Your task to perform on an android device: set the timer Image 0: 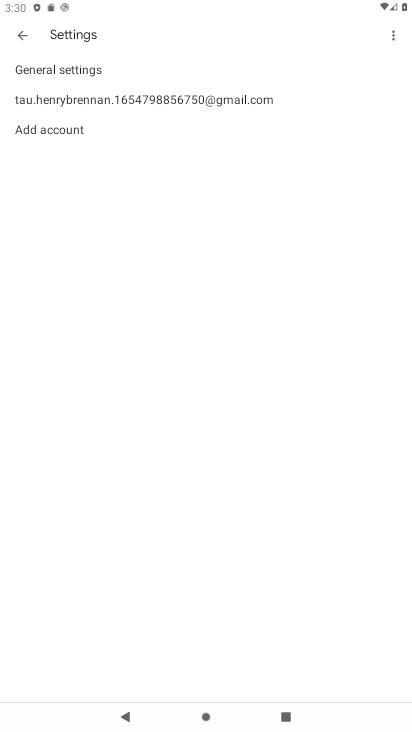
Step 0: press home button
Your task to perform on an android device: set the timer Image 1: 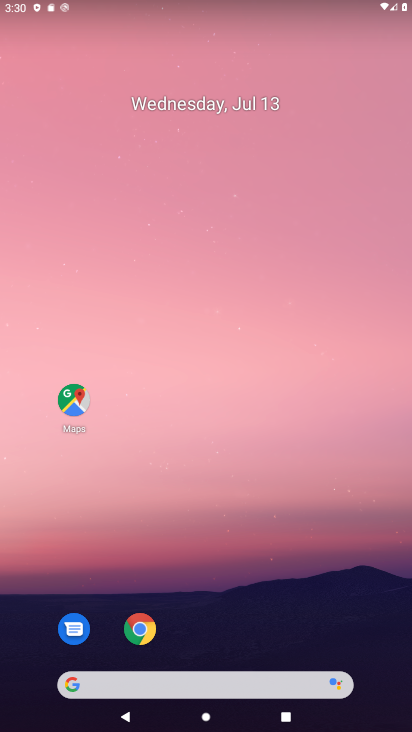
Step 1: drag from (270, 625) to (333, 134)
Your task to perform on an android device: set the timer Image 2: 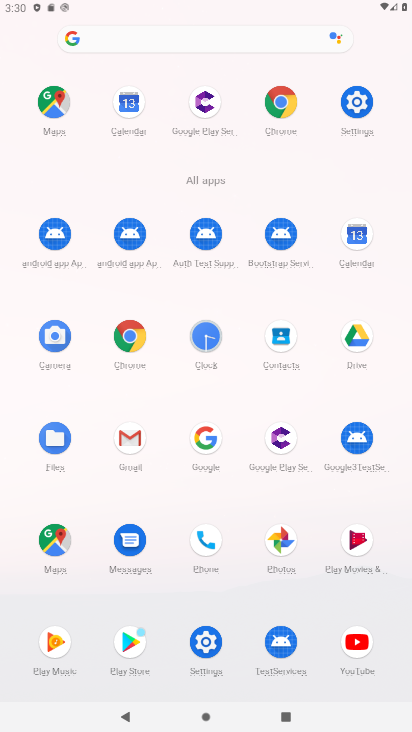
Step 2: click (201, 344)
Your task to perform on an android device: set the timer Image 3: 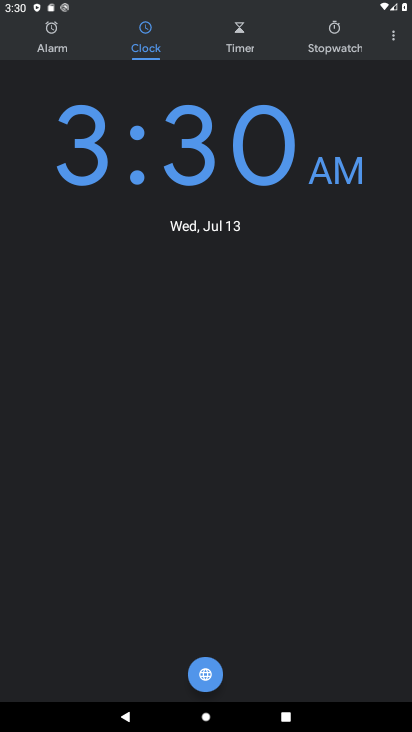
Step 3: click (245, 25)
Your task to perform on an android device: set the timer Image 4: 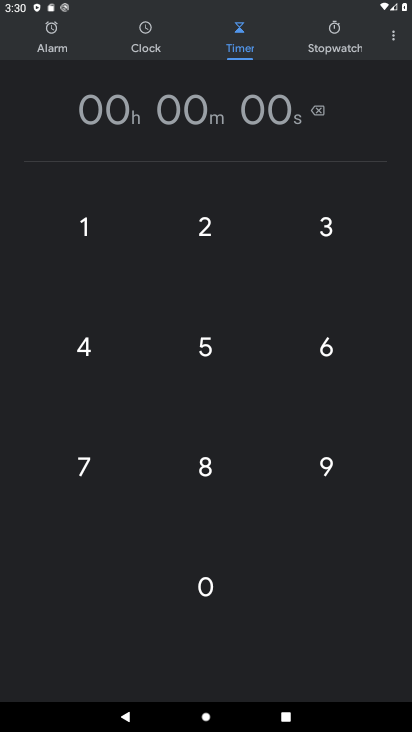
Step 4: click (209, 338)
Your task to perform on an android device: set the timer Image 5: 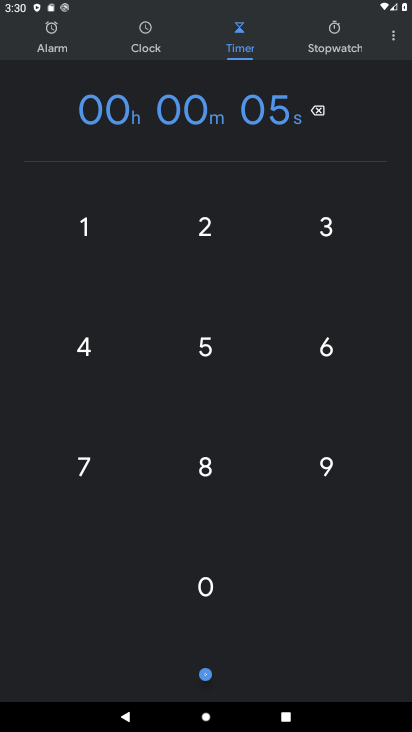
Step 5: click (213, 224)
Your task to perform on an android device: set the timer Image 6: 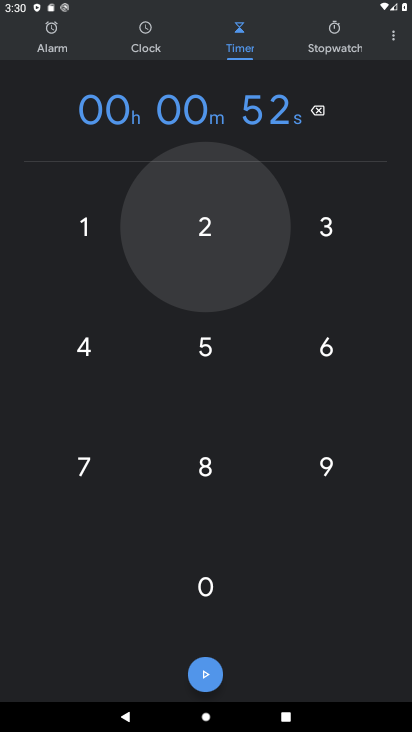
Step 6: click (213, 224)
Your task to perform on an android device: set the timer Image 7: 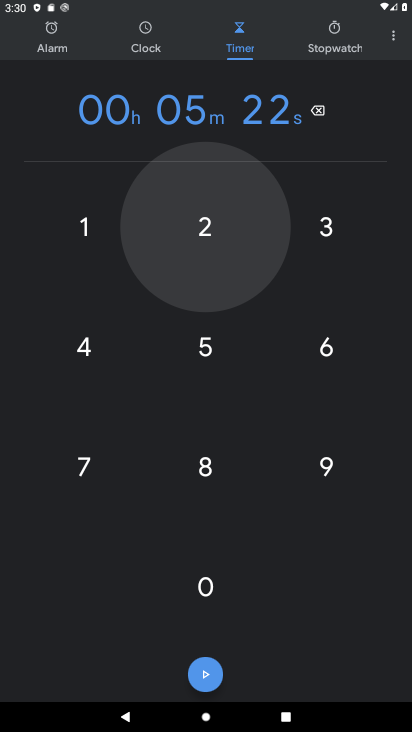
Step 7: click (213, 224)
Your task to perform on an android device: set the timer Image 8: 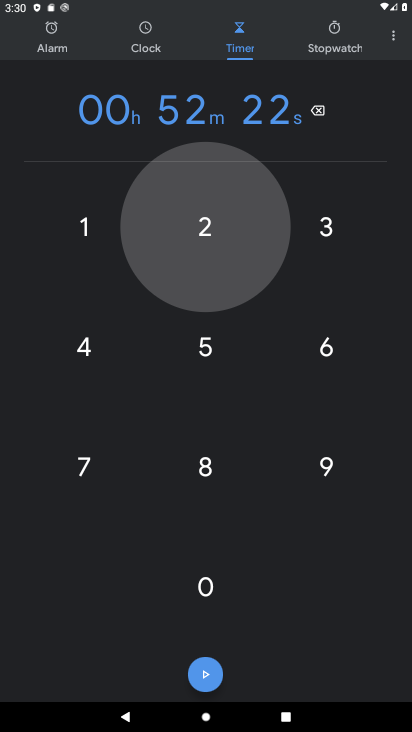
Step 8: click (213, 224)
Your task to perform on an android device: set the timer Image 9: 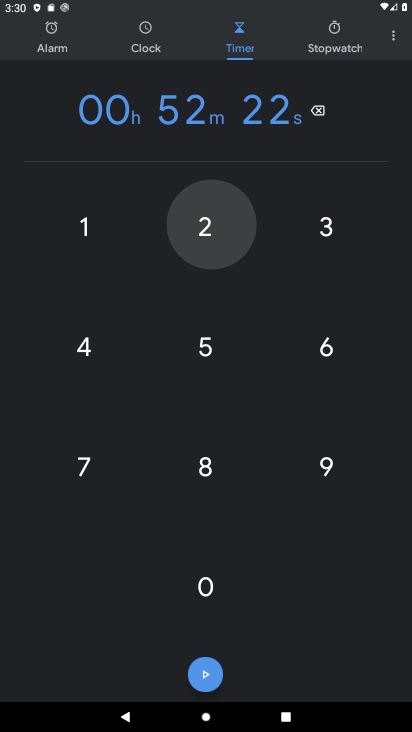
Step 9: click (213, 224)
Your task to perform on an android device: set the timer Image 10: 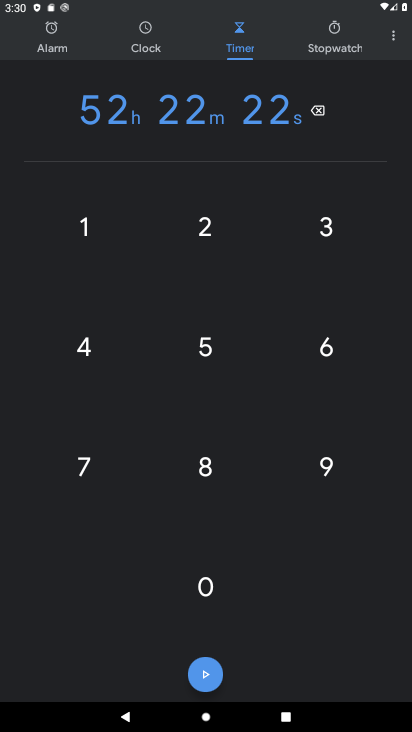
Step 10: click (200, 676)
Your task to perform on an android device: set the timer Image 11: 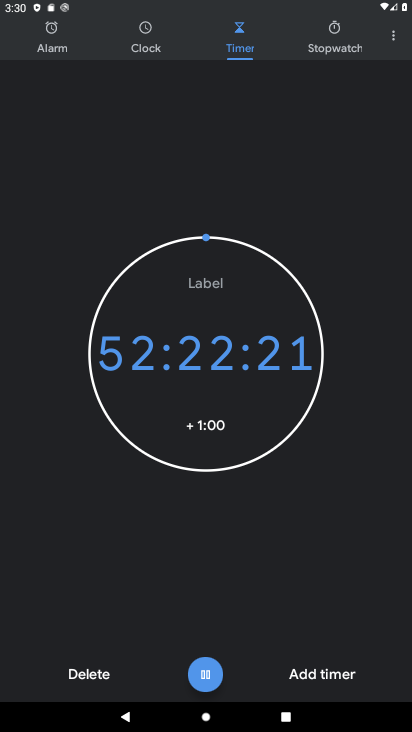
Step 11: click (200, 676)
Your task to perform on an android device: set the timer Image 12: 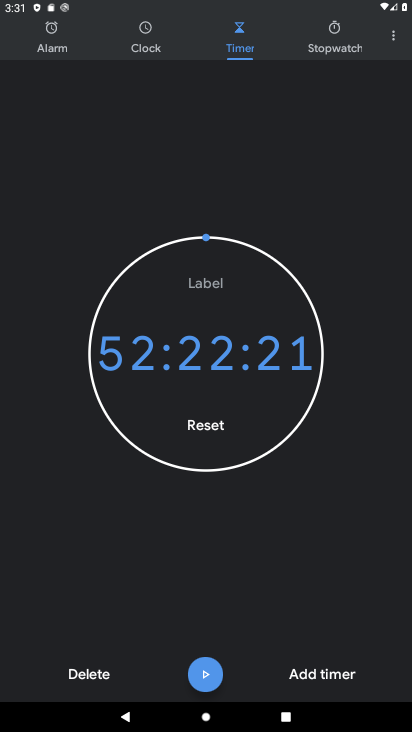
Step 12: task complete